Your task to perform on an android device: Open Chrome and go to settings Image 0: 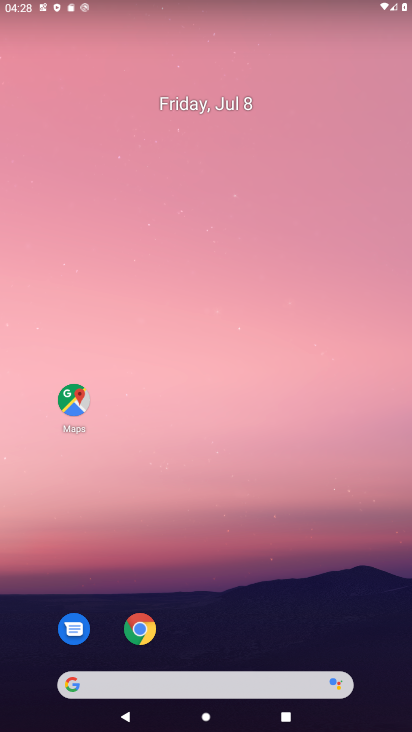
Step 0: click (140, 629)
Your task to perform on an android device: Open Chrome and go to settings Image 1: 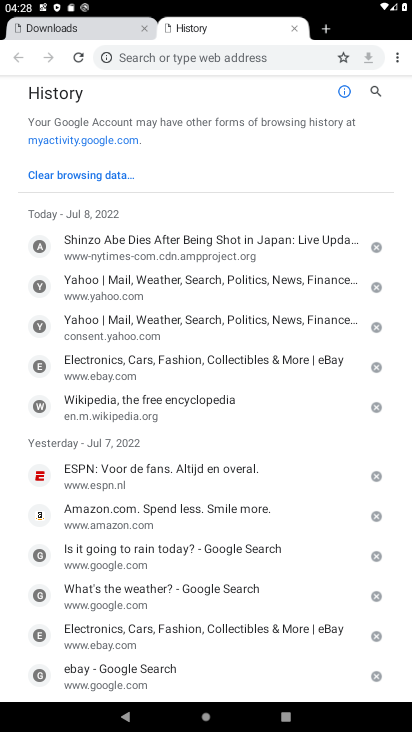
Step 1: click (398, 63)
Your task to perform on an android device: Open Chrome and go to settings Image 2: 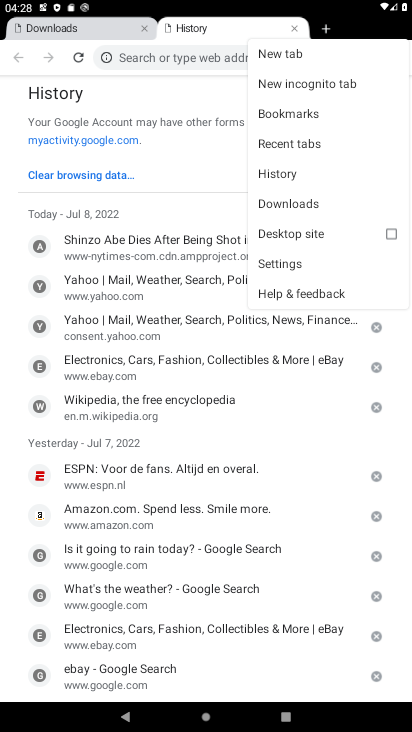
Step 2: click (274, 258)
Your task to perform on an android device: Open Chrome and go to settings Image 3: 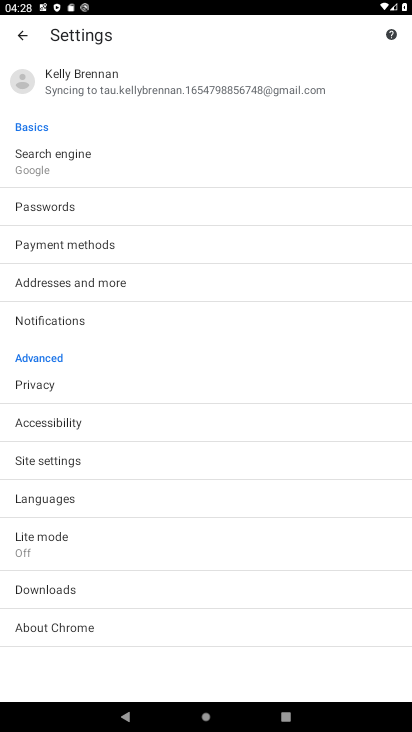
Step 3: task complete